Your task to perform on an android device: Go to Amazon Image 0: 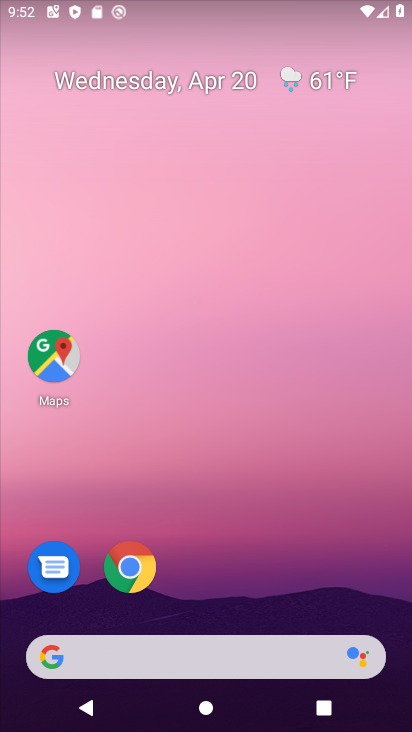
Step 0: click (136, 571)
Your task to perform on an android device: Go to Amazon Image 1: 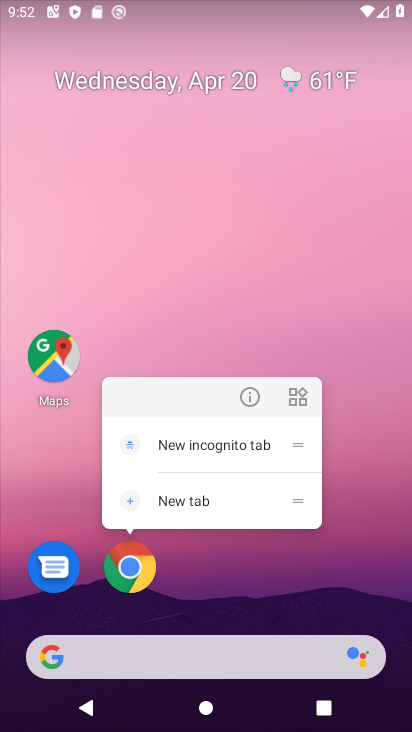
Step 1: click (141, 569)
Your task to perform on an android device: Go to Amazon Image 2: 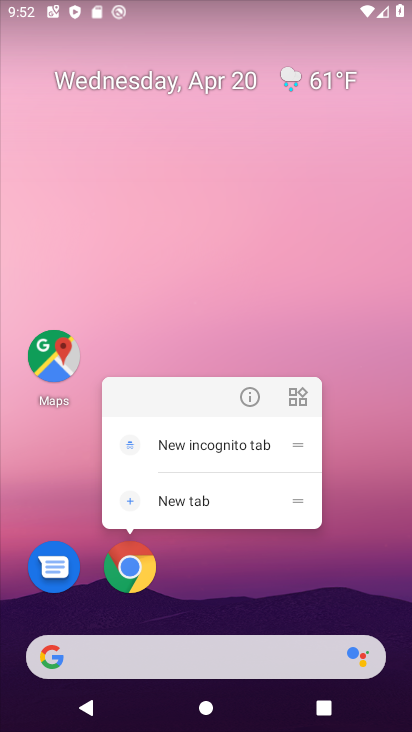
Step 2: click (141, 569)
Your task to perform on an android device: Go to Amazon Image 3: 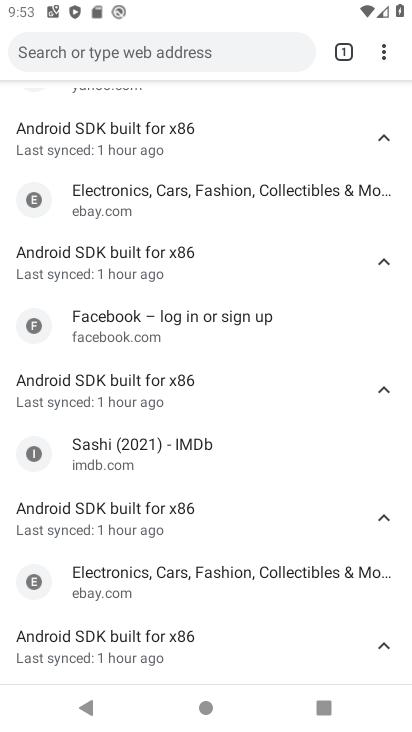
Step 3: click (336, 59)
Your task to perform on an android device: Go to Amazon Image 4: 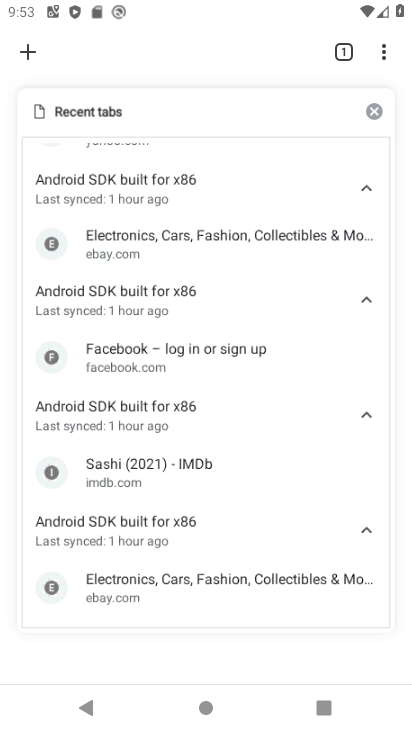
Step 4: click (27, 54)
Your task to perform on an android device: Go to Amazon Image 5: 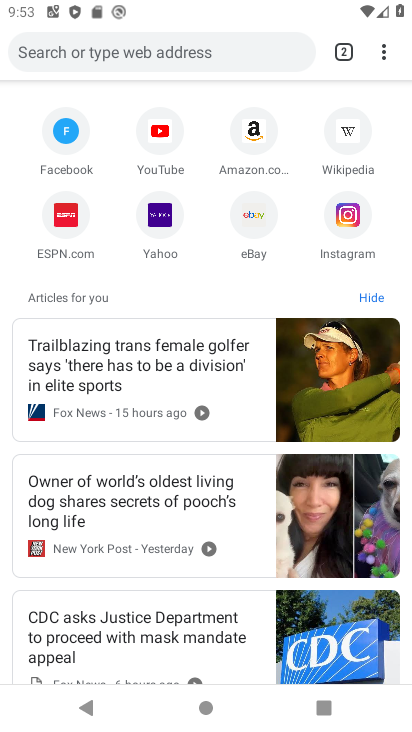
Step 5: click (258, 125)
Your task to perform on an android device: Go to Amazon Image 6: 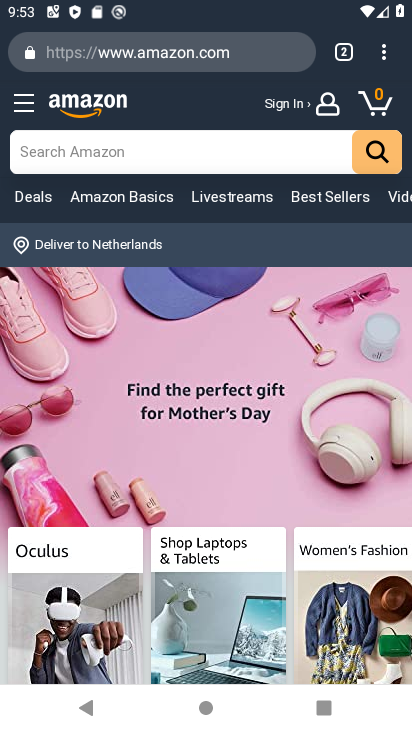
Step 6: task complete